Your task to perform on an android device: open app "Pluto TV - Live TV and Movies" (install if not already installed) Image 0: 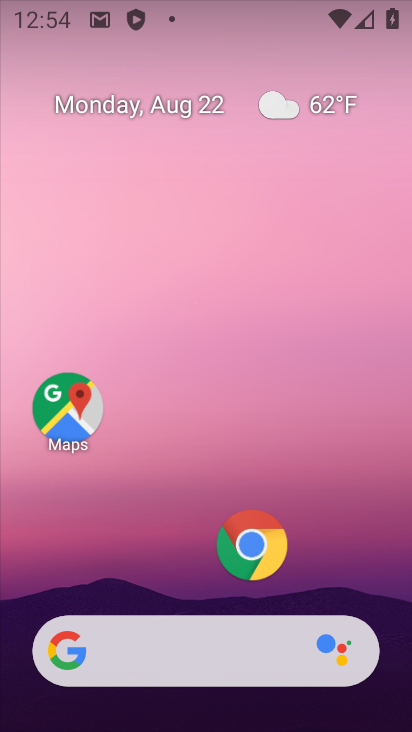
Step 0: drag from (142, 317) to (183, 128)
Your task to perform on an android device: open app "Pluto TV - Live TV and Movies" (install if not already installed) Image 1: 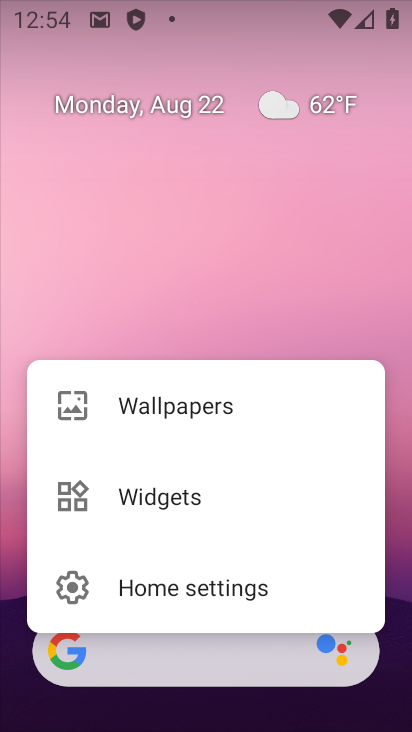
Step 1: click (179, 266)
Your task to perform on an android device: open app "Pluto TV - Live TV and Movies" (install if not already installed) Image 2: 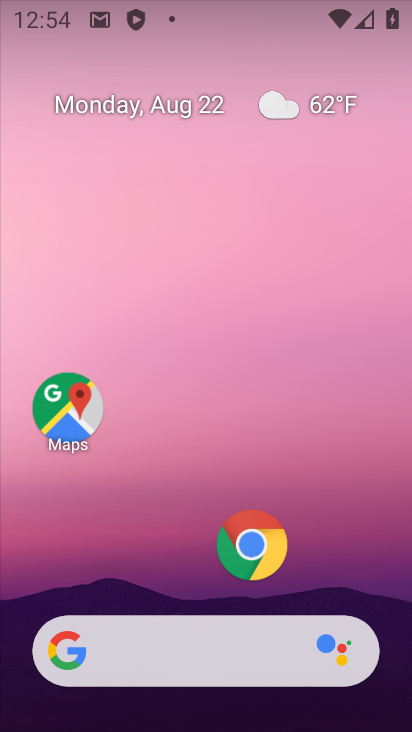
Step 2: drag from (165, 387) to (197, 177)
Your task to perform on an android device: open app "Pluto TV - Live TV and Movies" (install if not already installed) Image 3: 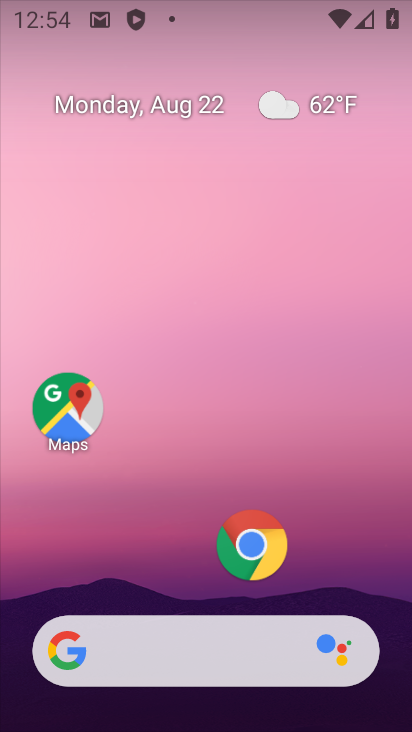
Step 3: drag from (151, 544) to (236, 128)
Your task to perform on an android device: open app "Pluto TV - Live TV and Movies" (install if not already installed) Image 4: 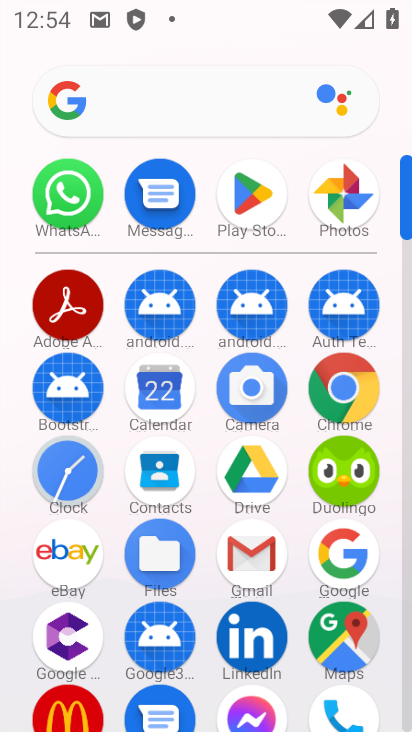
Step 4: click (258, 192)
Your task to perform on an android device: open app "Pluto TV - Live TV and Movies" (install if not already installed) Image 5: 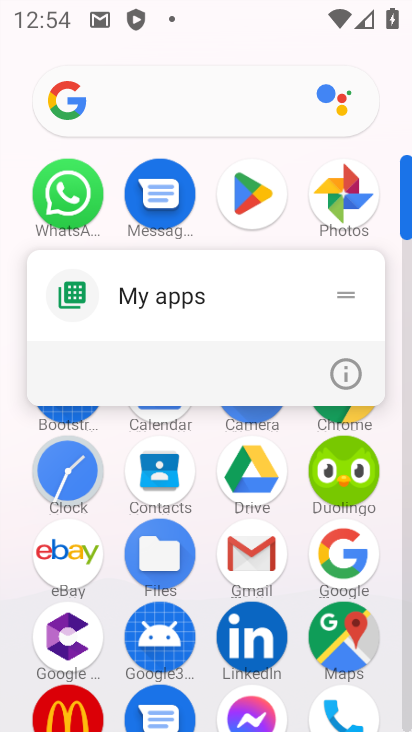
Step 5: click (256, 188)
Your task to perform on an android device: open app "Pluto TV - Live TV and Movies" (install if not already installed) Image 6: 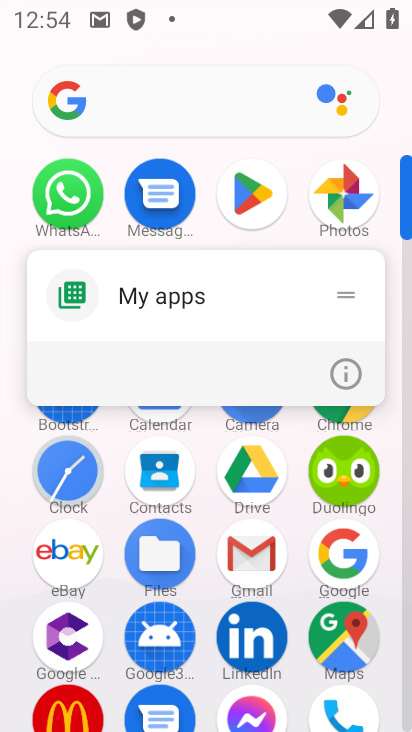
Step 6: click (256, 188)
Your task to perform on an android device: open app "Pluto TV - Live TV and Movies" (install if not already installed) Image 7: 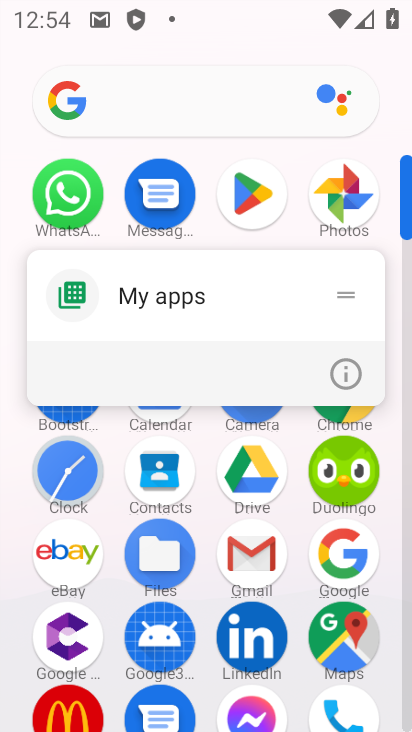
Step 7: click (256, 188)
Your task to perform on an android device: open app "Pluto TV - Live TV and Movies" (install if not already installed) Image 8: 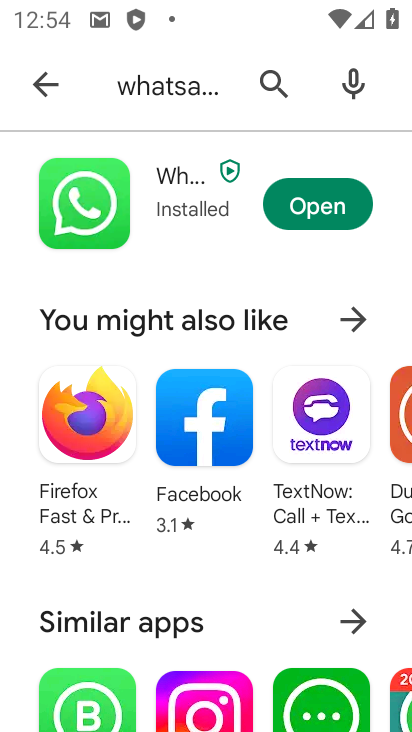
Step 8: click (280, 79)
Your task to perform on an android device: open app "Pluto TV - Live TV and Movies" (install if not already installed) Image 9: 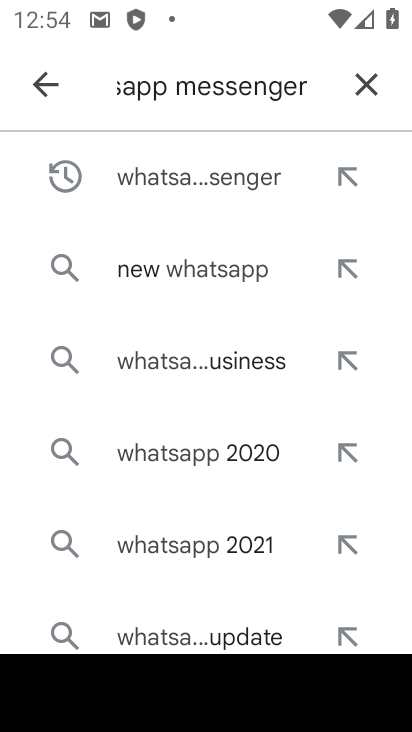
Step 9: click (361, 82)
Your task to perform on an android device: open app "Pluto TV - Live TV and Movies" (install if not already installed) Image 10: 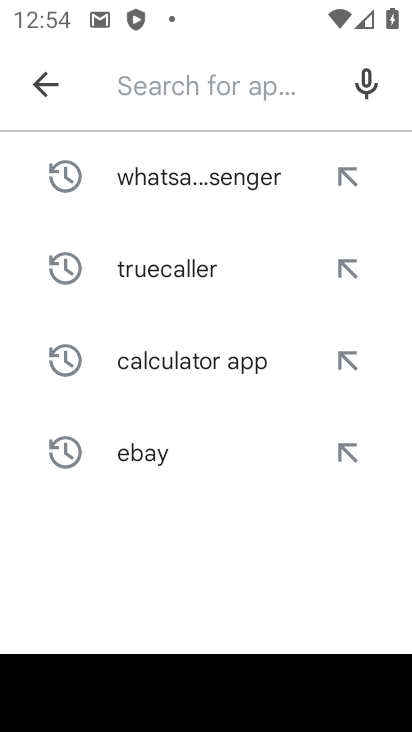
Step 10: click (133, 81)
Your task to perform on an android device: open app "Pluto TV - Live TV and Movies" (install if not already installed) Image 11: 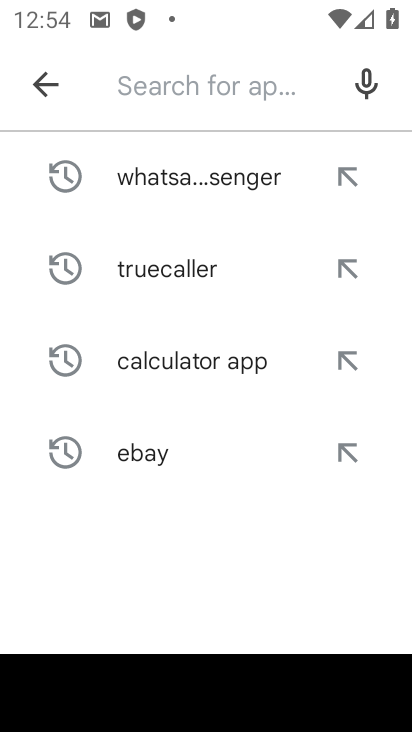
Step 11: type "Pluto TV"
Your task to perform on an android device: open app "Pluto TV - Live TV and Movies" (install if not already installed) Image 12: 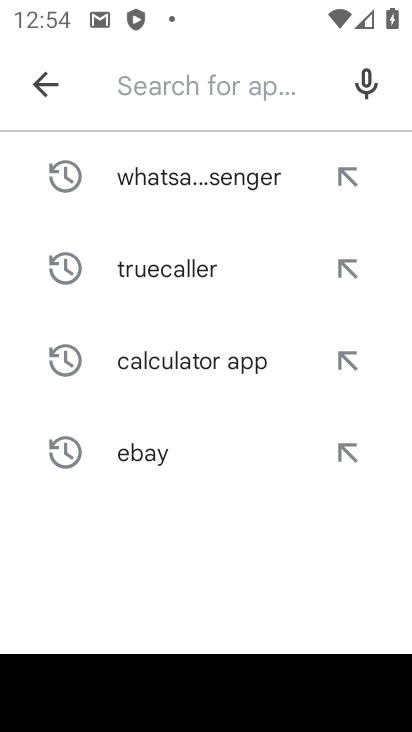
Step 12: click (242, 564)
Your task to perform on an android device: open app "Pluto TV - Live TV and Movies" (install if not already installed) Image 13: 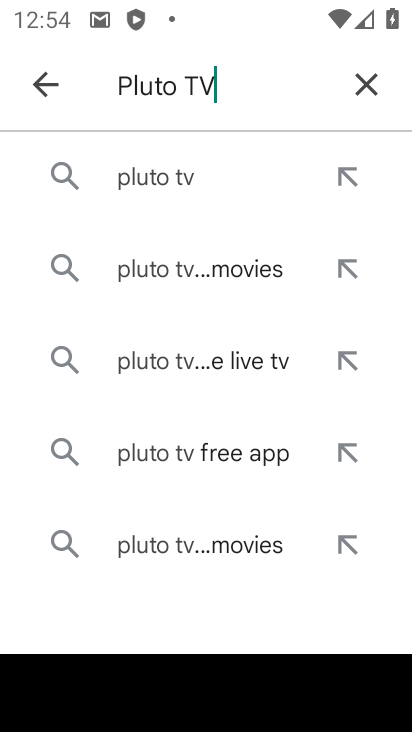
Step 13: click (191, 184)
Your task to perform on an android device: open app "Pluto TV - Live TV and Movies" (install if not already installed) Image 14: 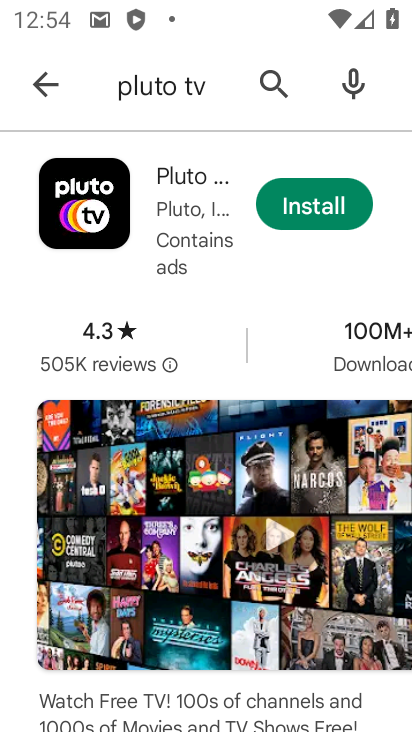
Step 14: click (348, 191)
Your task to perform on an android device: open app "Pluto TV - Live TV and Movies" (install if not already installed) Image 15: 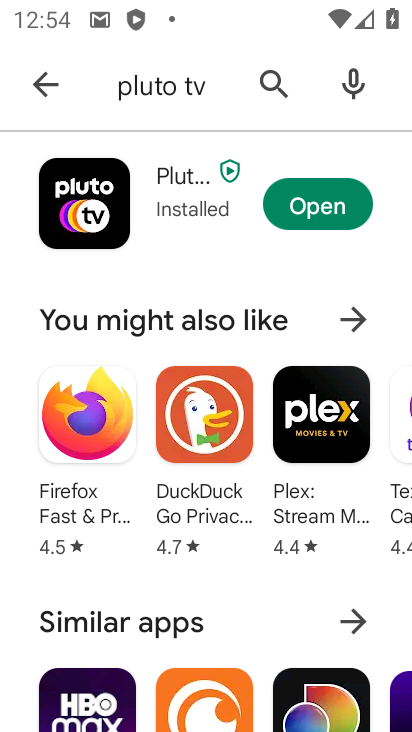
Step 15: click (328, 187)
Your task to perform on an android device: open app "Pluto TV - Live TV and Movies" (install if not already installed) Image 16: 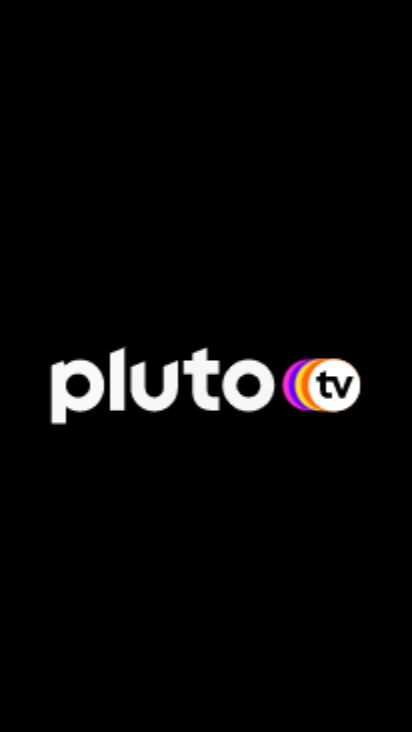
Step 16: task complete